Your task to perform on an android device: uninstall "VLC for Android" Image 0: 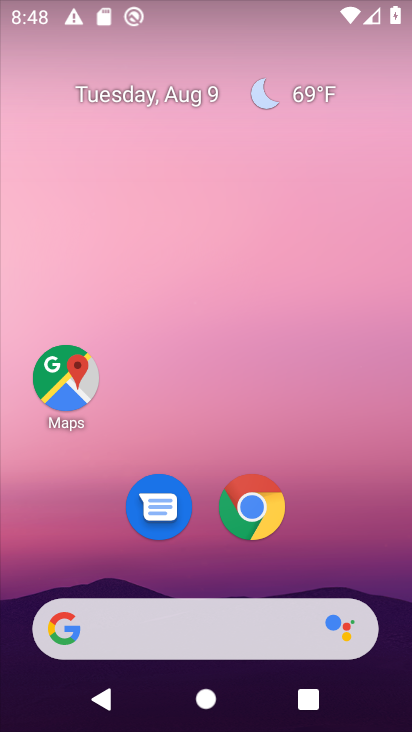
Step 0: drag from (241, 644) to (310, 1)
Your task to perform on an android device: uninstall "VLC for Android" Image 1: 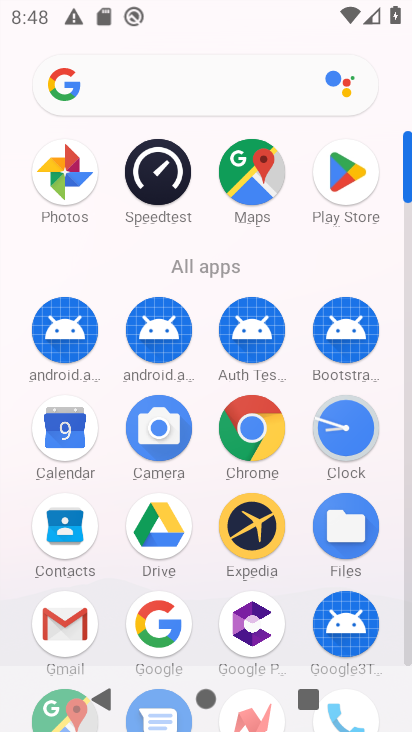
Step 1: click (345, 176)
Your task to perform on an android device: uninstall "VLC for Android" Image 2: 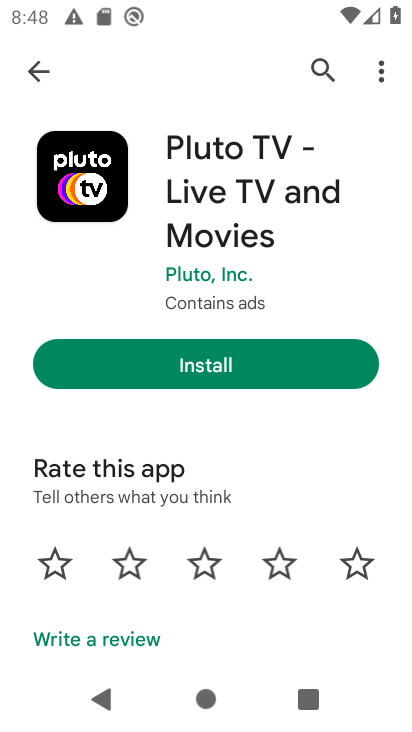
Step 2: click (329, 74)
Your task to perform on an android device: uninstall "VLC for Android" Image 3: 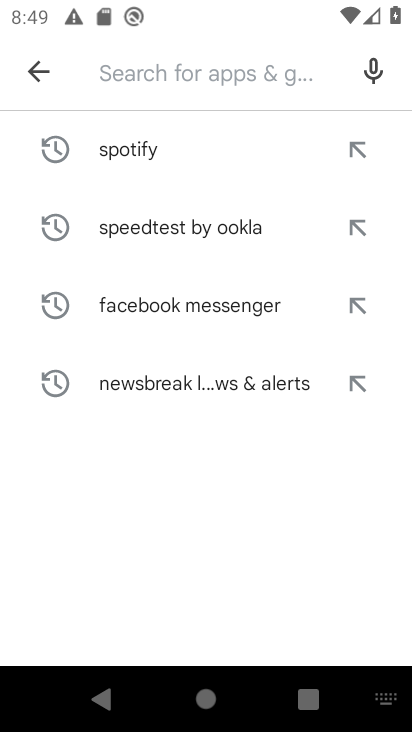
Step 3: type "VLC for Android"
Your task to perform on an android device: uninstall "VLC for Android" Image 4: 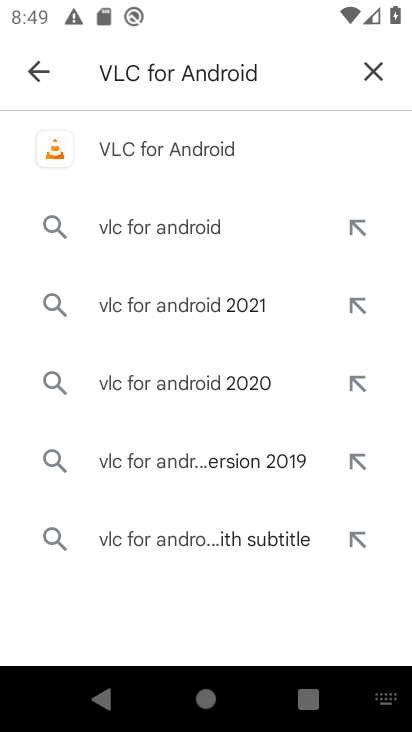
Step 4: click (167, 141)
Your task to perform on an android device: uninstall "VLC for Android" Image 5: 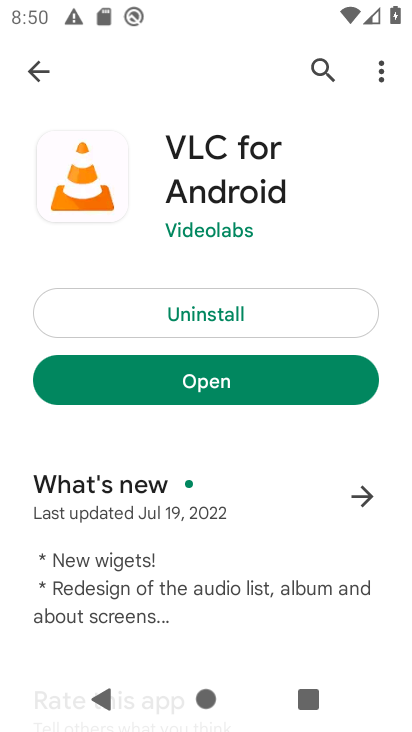
Step 5: click (173, 315)
Your task to perform on an android device: uninstall "VLC for Android" Image 6: 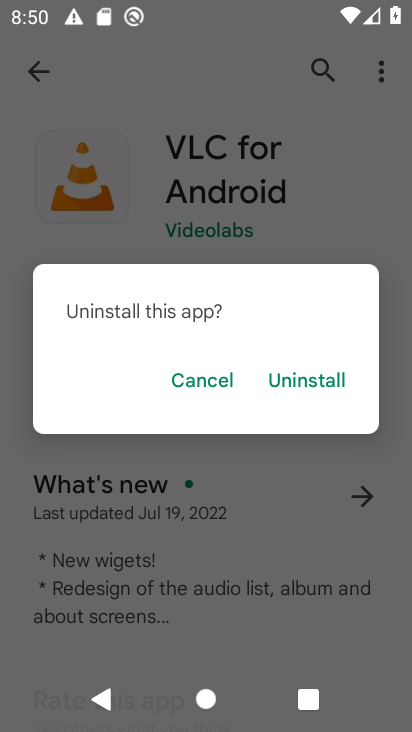
Step 6: click (298, 381)
Your task to perform on an android device: uninstall "VLC for Android" Image 7: 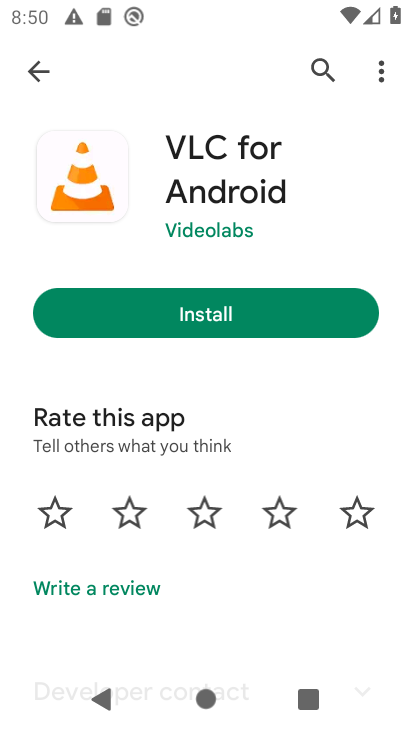
Step 7: task complete